Your task to perform on an android device: Is it going to rain this weekend? Image 0: 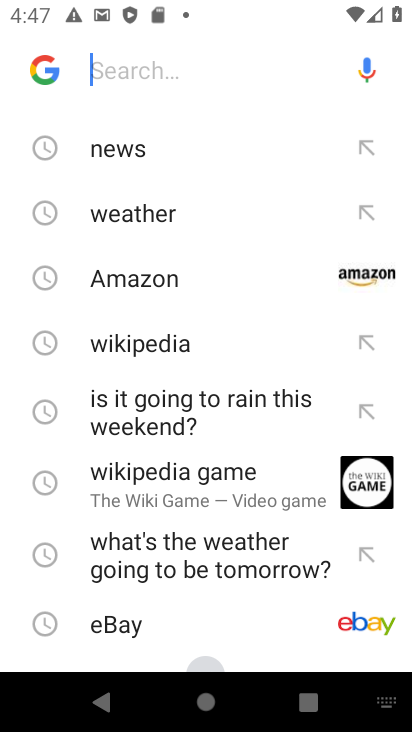
Step 0: click (176, 401)
Your task to perform on an android device: Is it going to rain this weekend? Image 1: 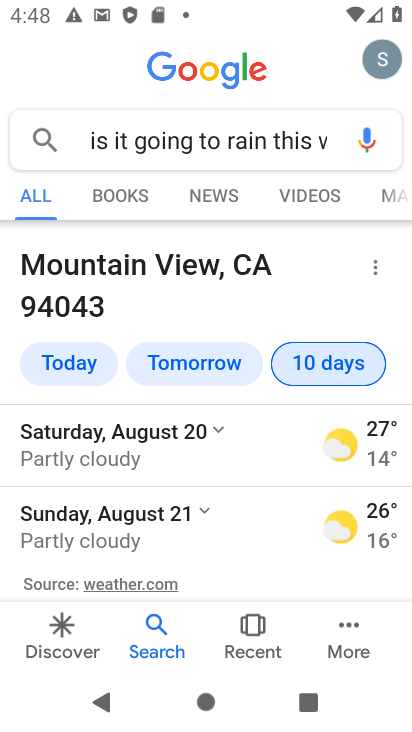
Step 1: task complete